Your task to perform on an android device: Go to wifi settings Image 0: 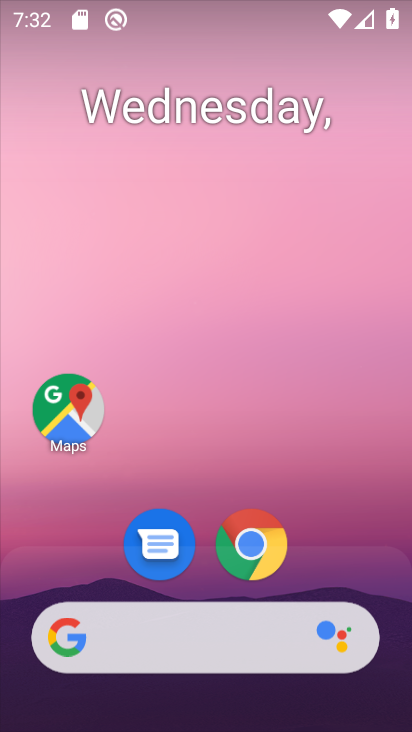
Step 0: drag from (313, 532) to (314, 292)
Your task to perform on an android device: Go to wifi settings Image 1: 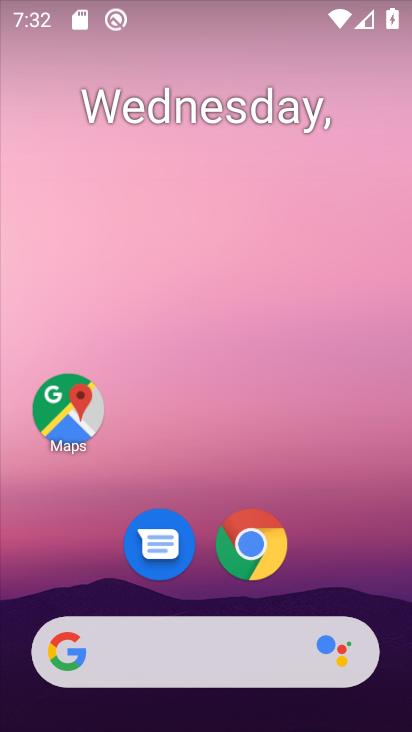
Step 1: drag from (312, 595) to (359, 96)
Your task to perform on an android device: Go to wifi settings Image 2: 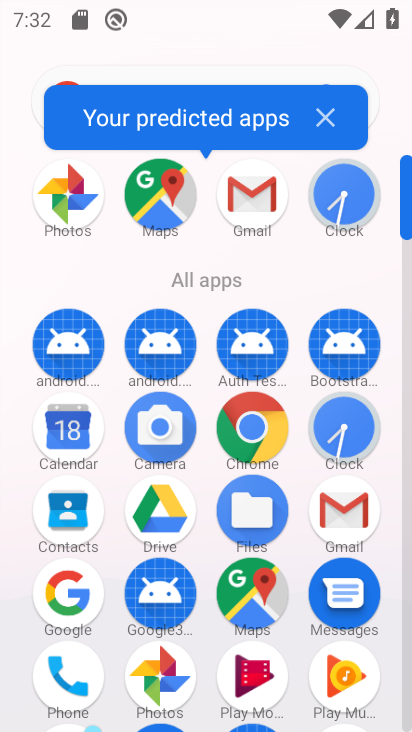
Step 2: drag from (245, 625) to (280, 105)
Your task to perform on an android device: Go to wifi settings Image 3: 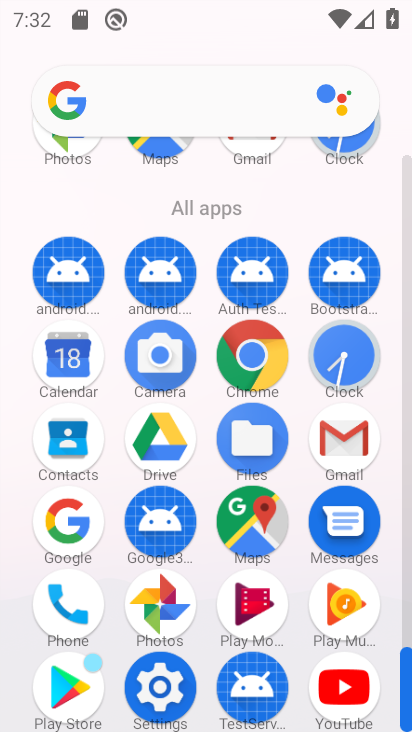
Step 3: click (154, 686)
Your task to perform on an android device: Go to wifi settings Image 4: 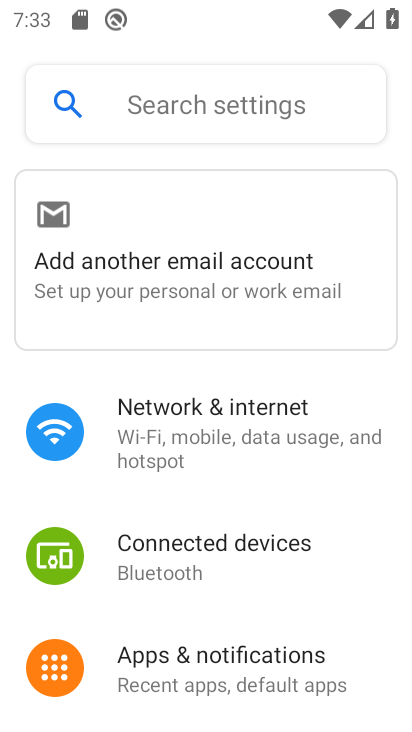
Step 4: click (251, 419)
Your task to perform on an android device: Go to wifi settings Image 5: 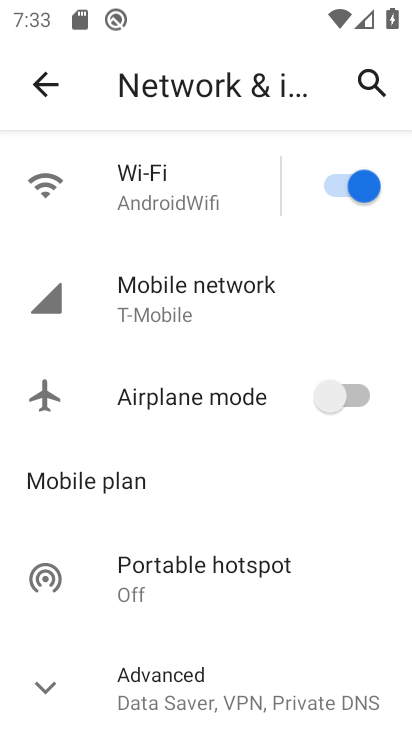
Step 5: click (138, 184)
Your task to perform on an android device: Go to wifi settings Image 6: 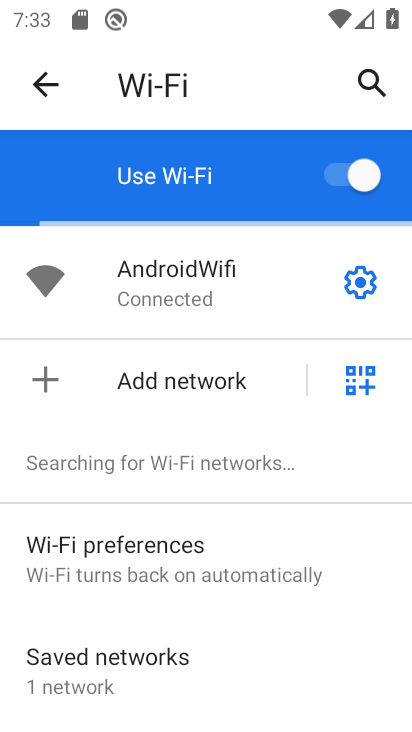
Step 6: task complete